Your task to perform on an android device: check storage Image 0: 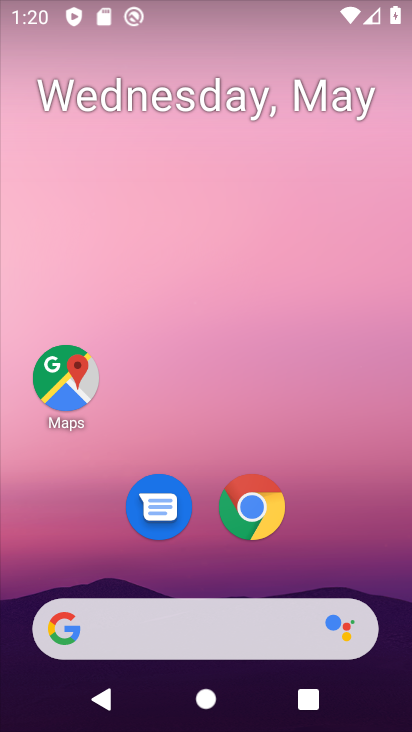
Step 0: drag from (396, 585) to (237, 102)
Your task to perform on an android device: check storage Image 1: 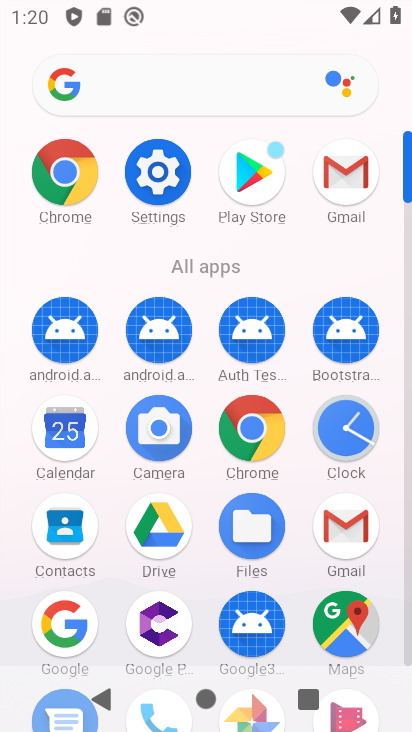
Step 1: click (157, 157)
Your task to perform on an android device: check storage Image 2: 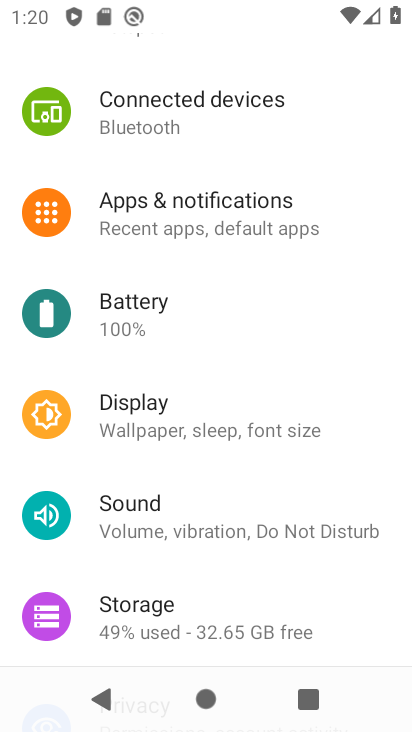
Step 2: click (176, 594)
Your task to perform on an android device: check storage Image 3: 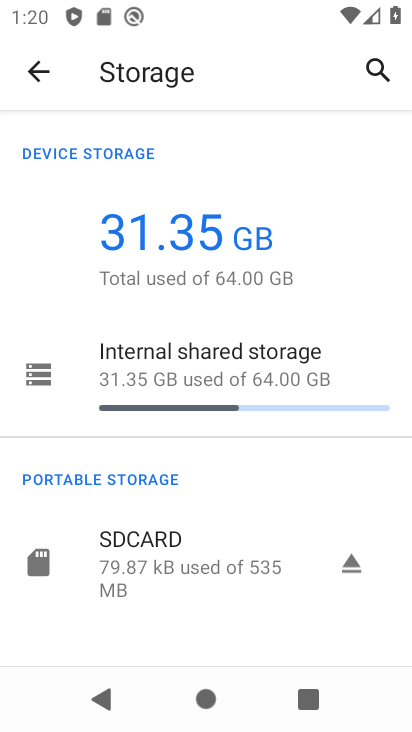
Step 3: task complete